Your task to perform on an android device: Add "dell xps" to the cart on newegg.com Image 0: 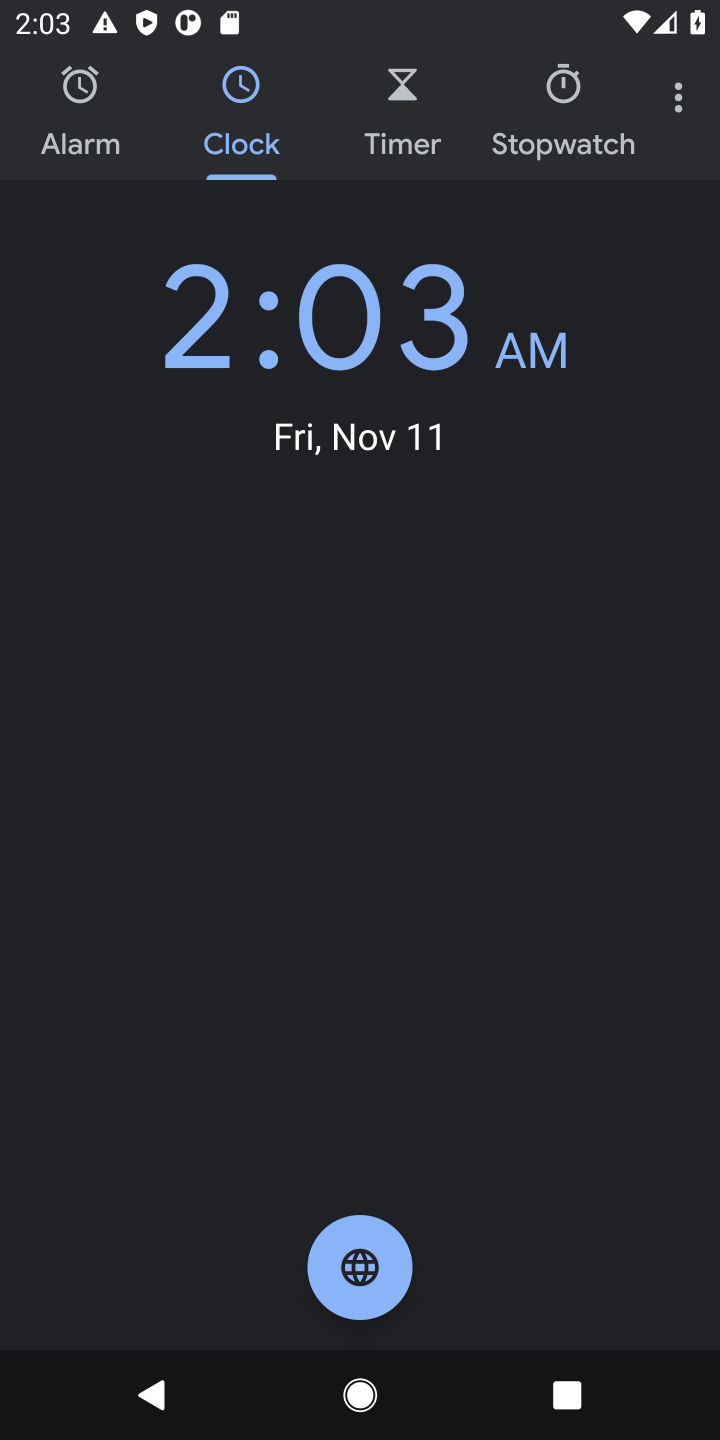
Step 0: press home button
Your task to perform on an android device: Add "dell xps" to the cart on newegg.com Image 1: 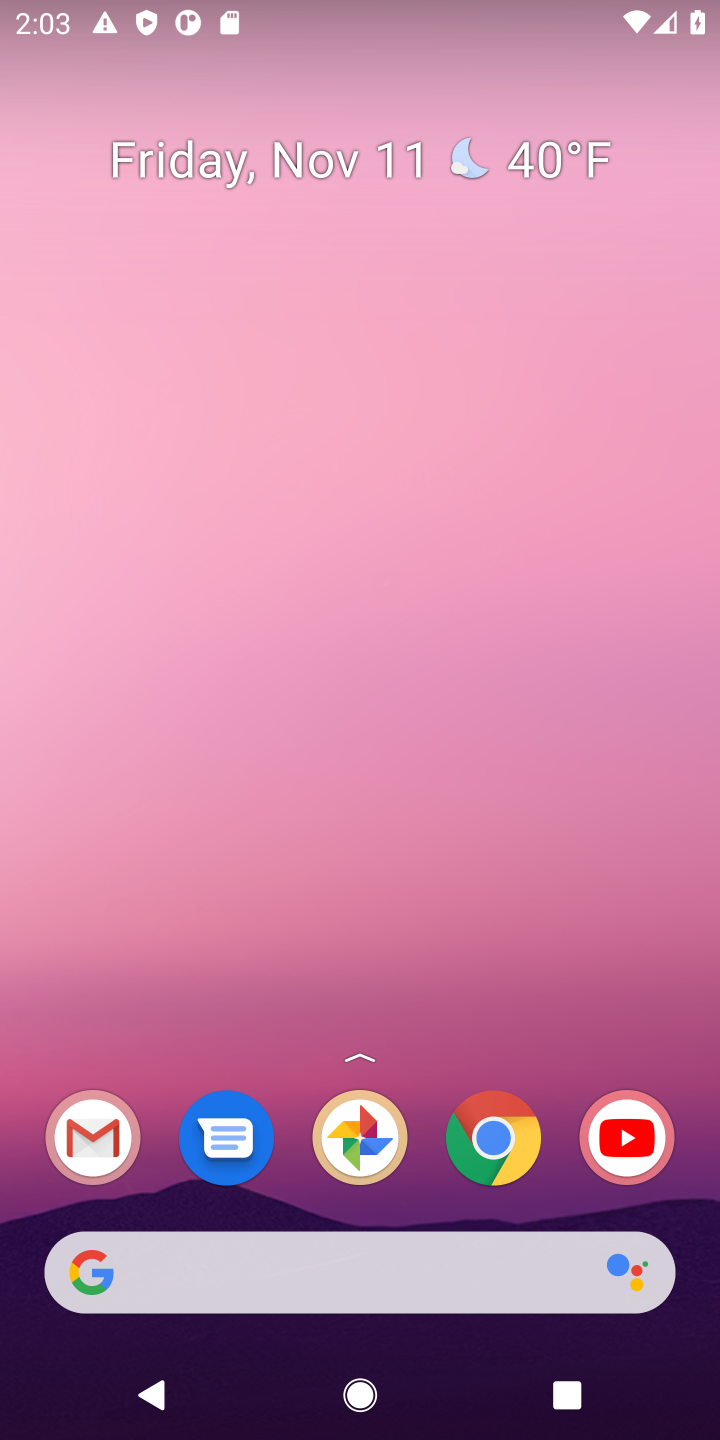
Step 1: click (502, 1132)
Your task to perform on an android device: Add "dell xps" to the cart on newegg.com Image 2: 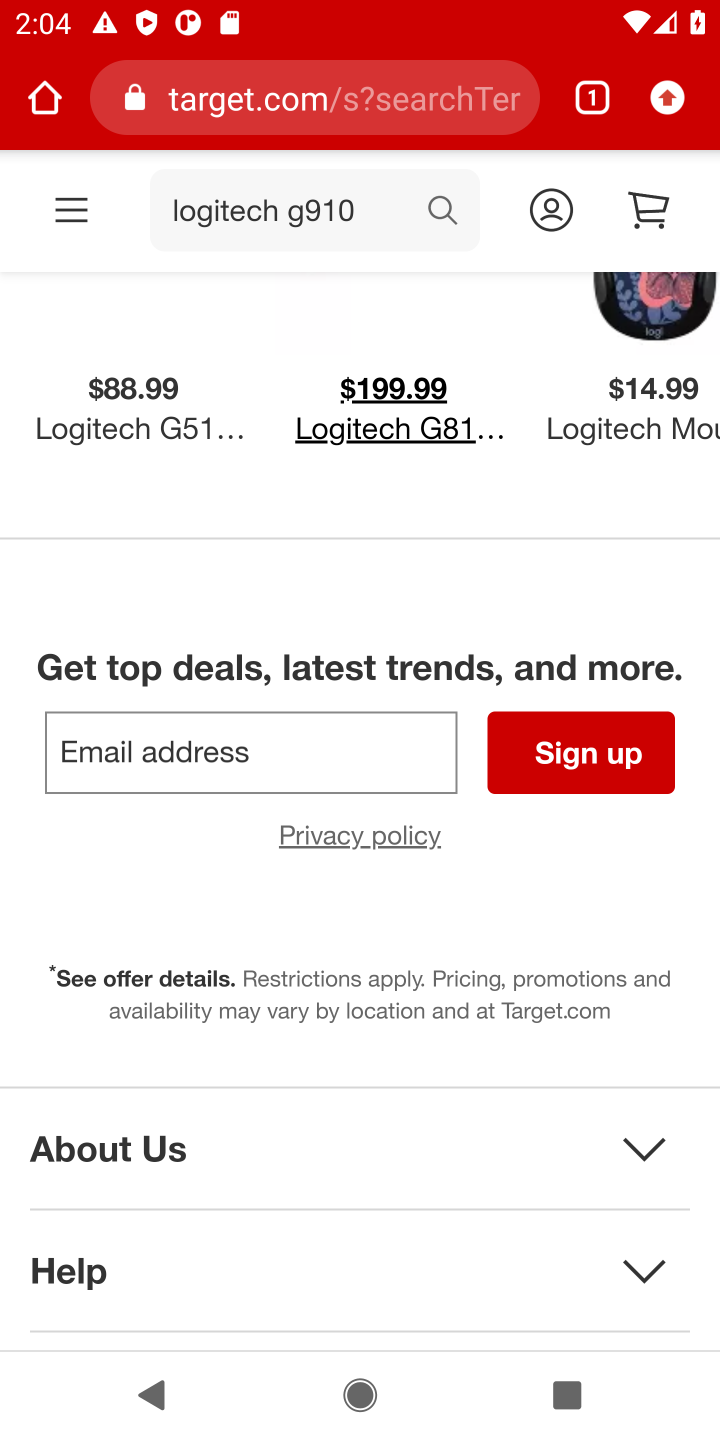
Step 2: click (381, 86)
Your task to perform on an android device: Add "dell xps" to the cart on newegg.com Image 3: 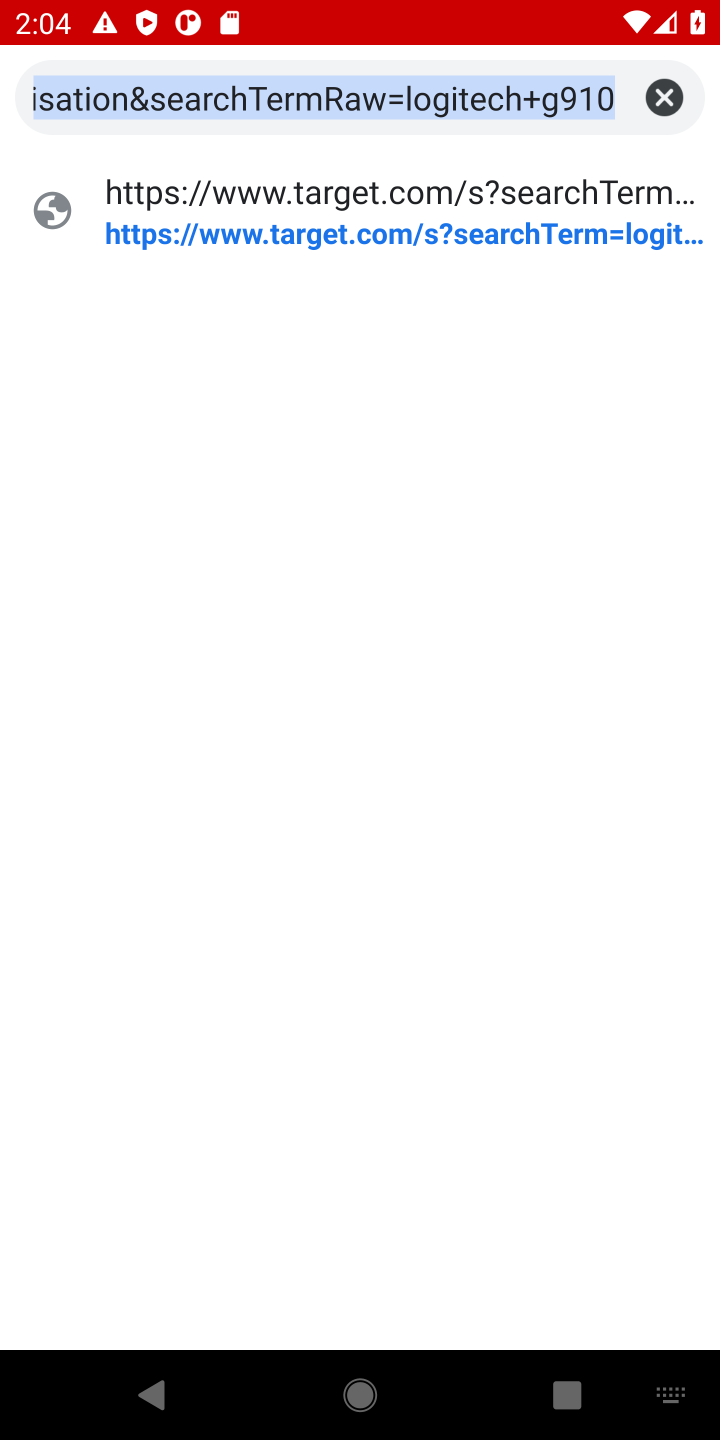
Step 3: click (673, 108)
Your task to perform on an android device: Add "dell xps" to the cart on newegg.com Image 4: 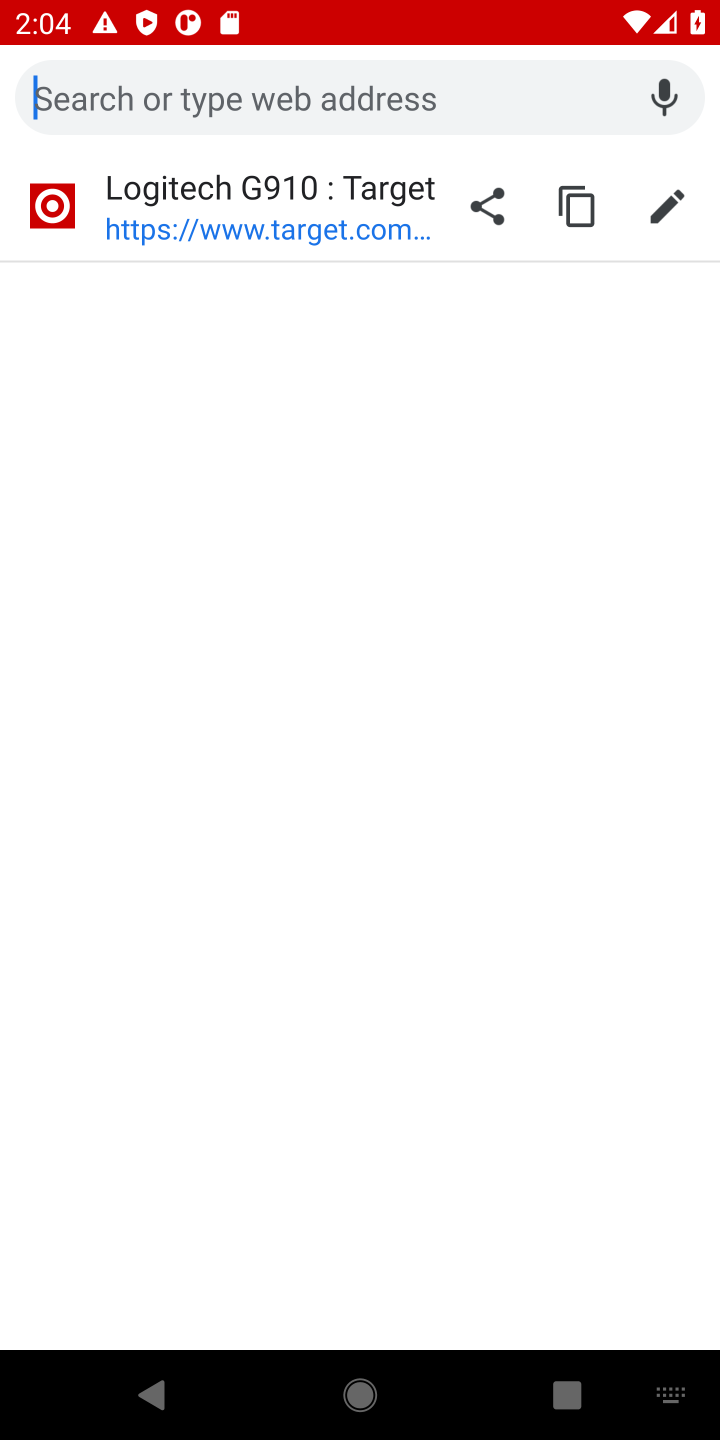
Step 4: type "newegg.com"
Your task to perform on an android device: Add "dell xps" to the cart on newegg.com Image 5: 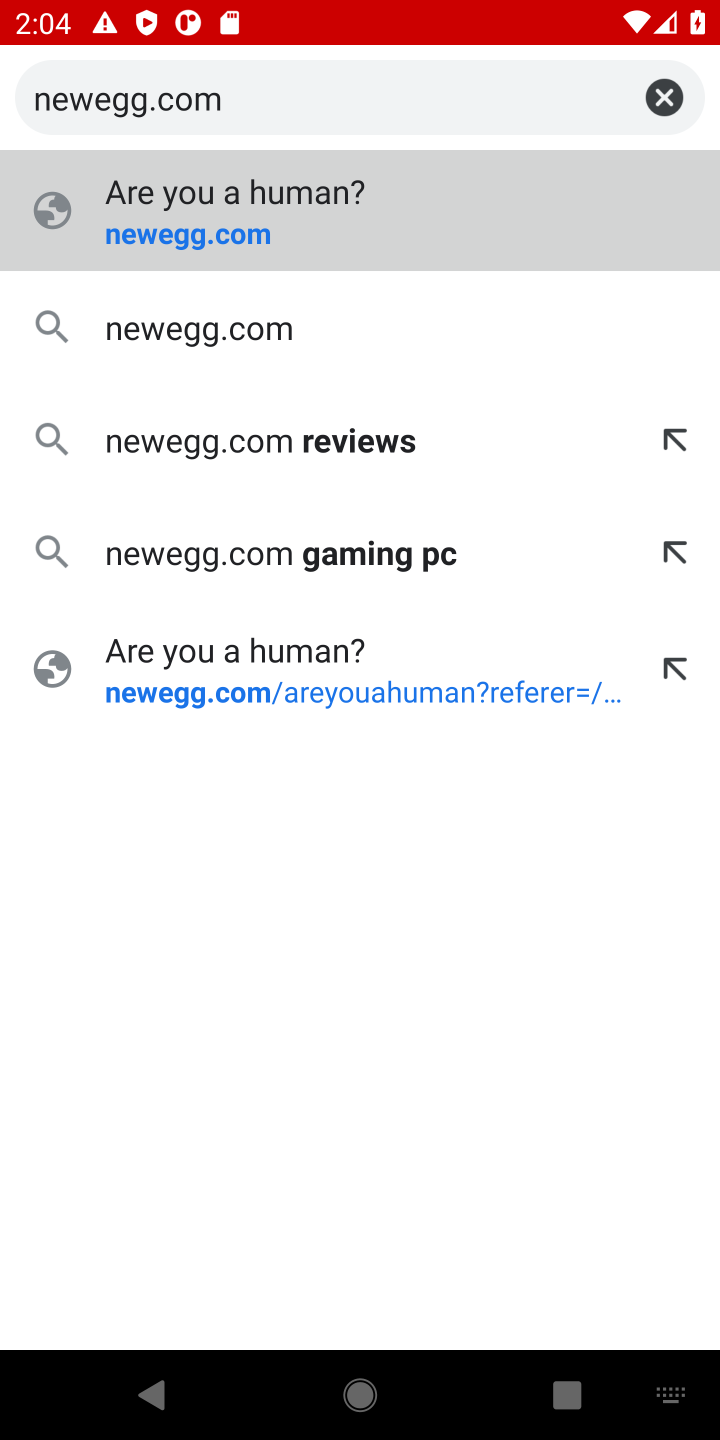
Step 5: click (245, 323)
Your task to perform on an android device: Add "dell xps" to the cart on newegg.com Image 6: 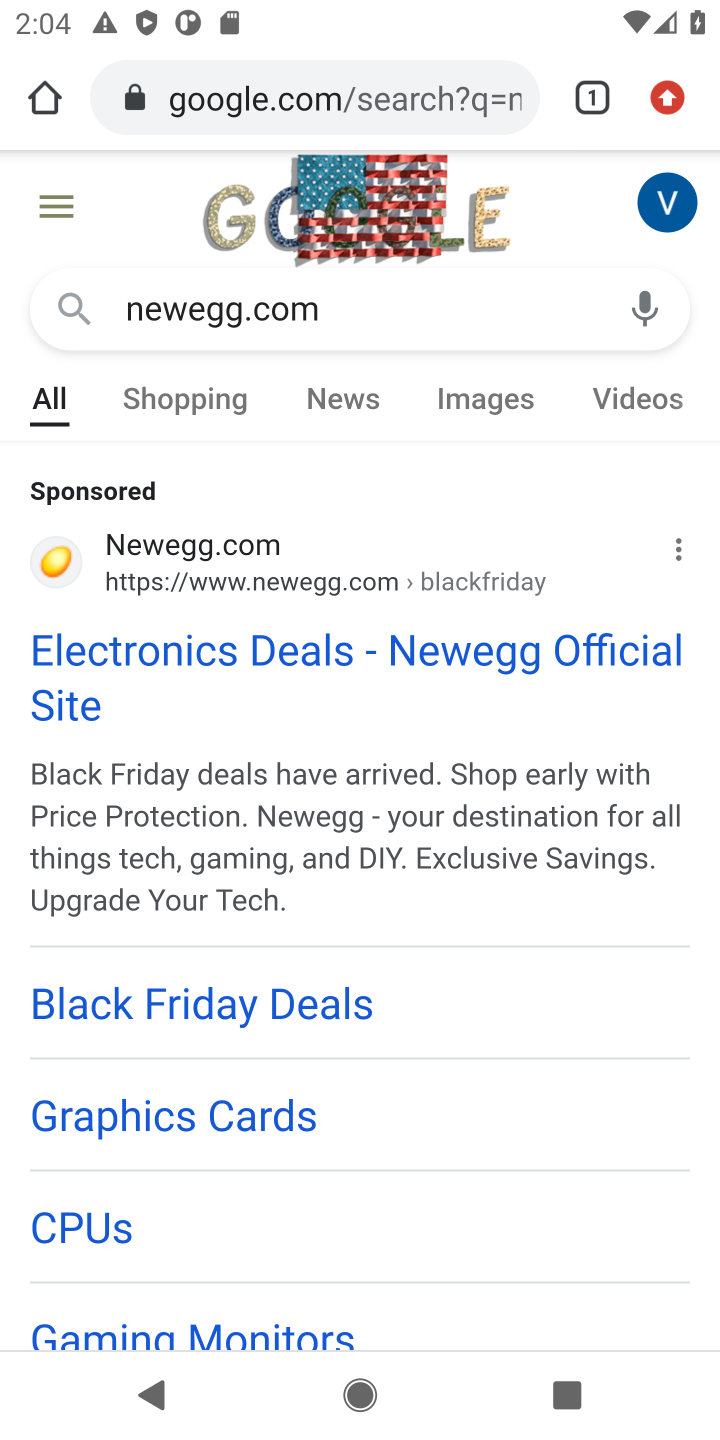
Step 6: drag from (340, 1042) to (402, 601)
Your task to perform on an android device: Add "dell xps" to the cart on newegg.com Image 7: 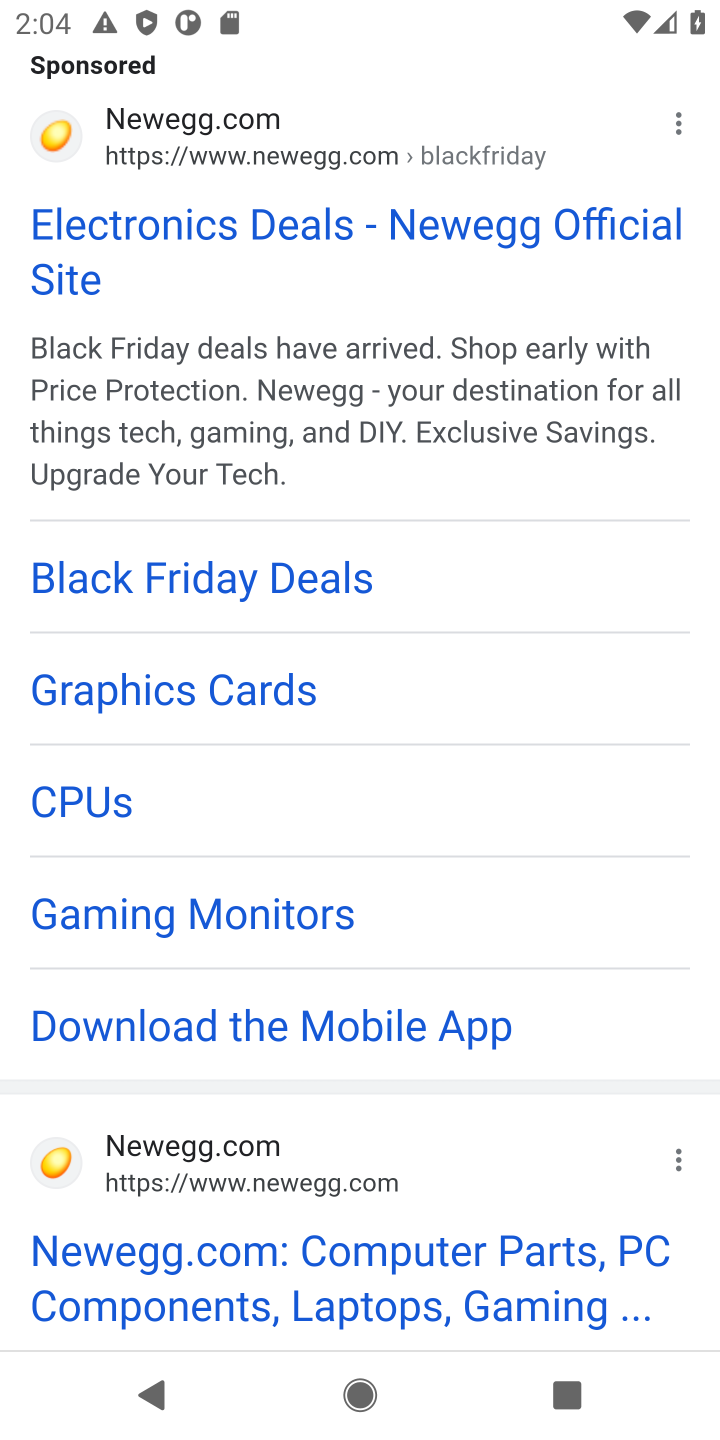
Step 7: click (334, 1189)
Your task to perform on an android device: Add "dell xps" to the cart on newegg.com Image 8: 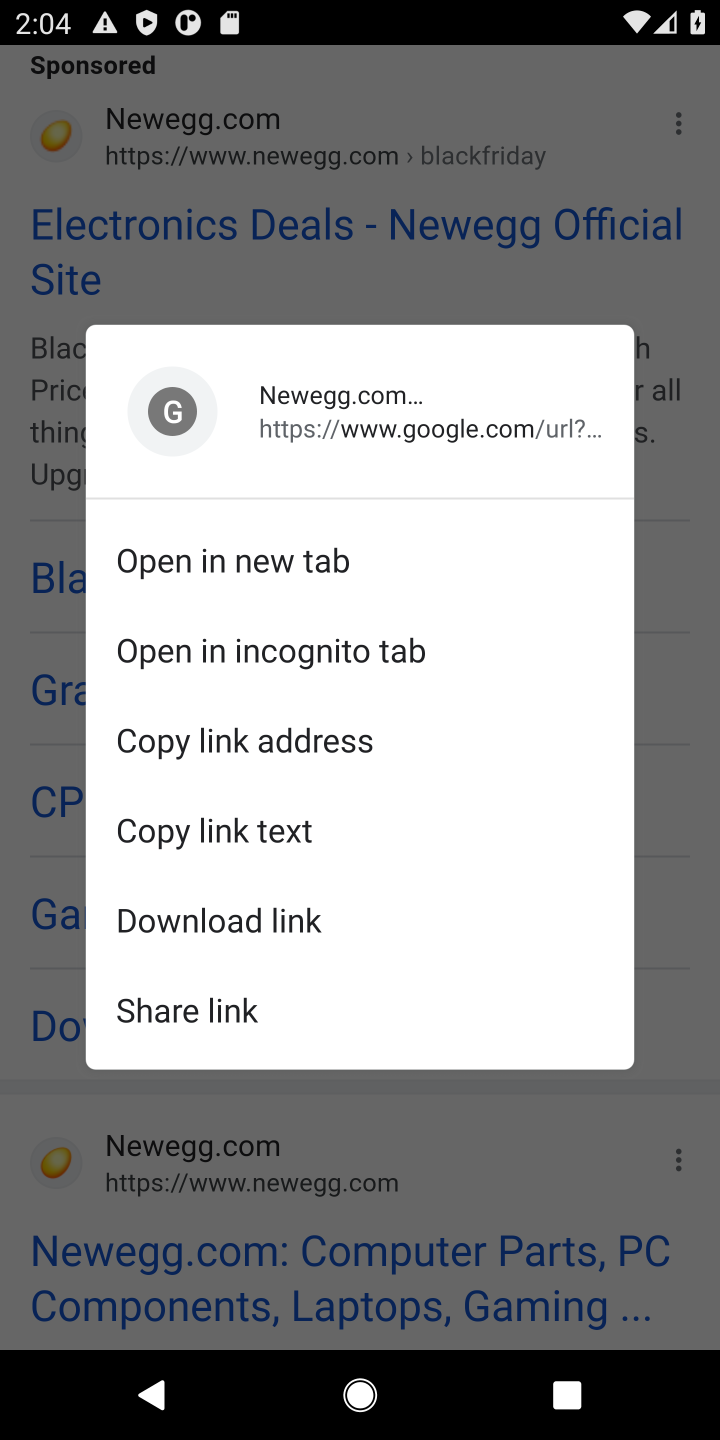
Step 8: click (335, 1181)
Your task to perform on an android device: Add "dell xps" to the cart on newegg.com Image 9: 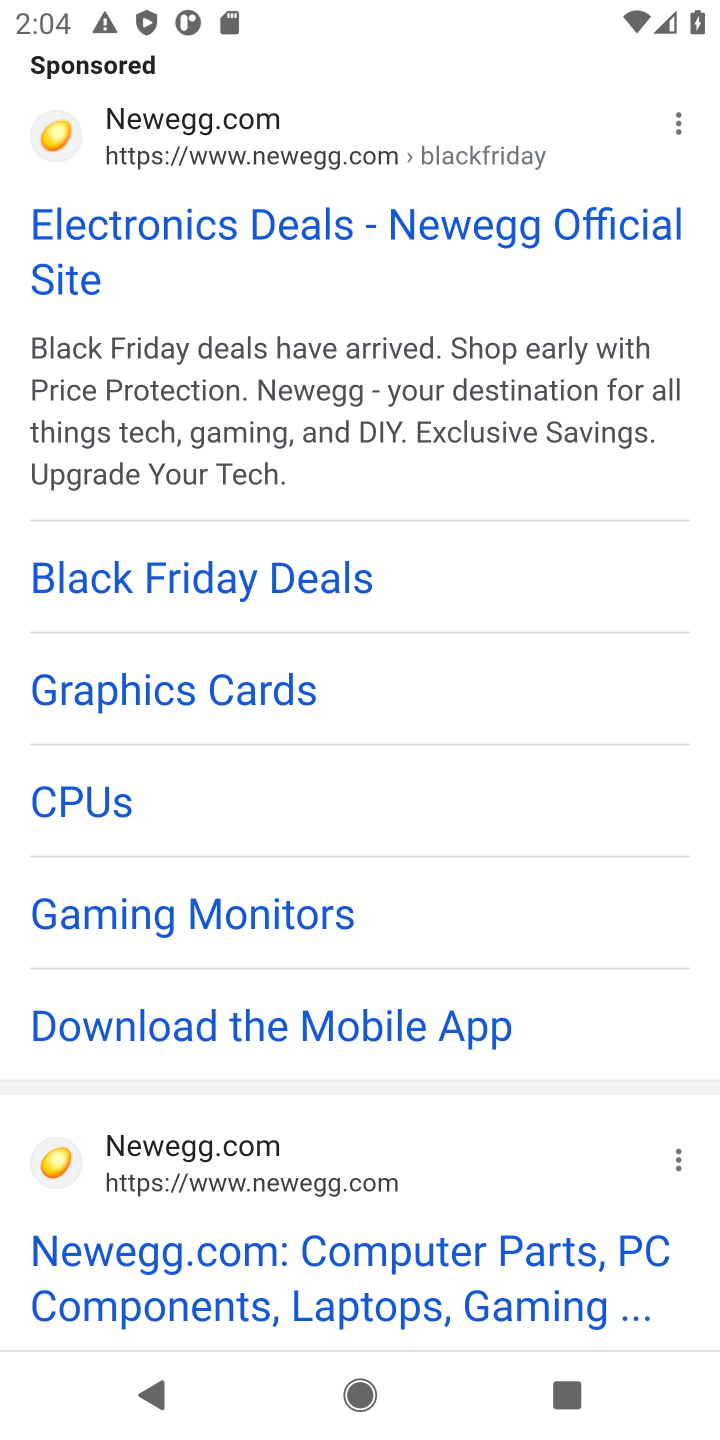
Step 9: click (206, 1183)
Your task to perform on an android device: Add "dell xps" to the cart on newegg.com Image 10: 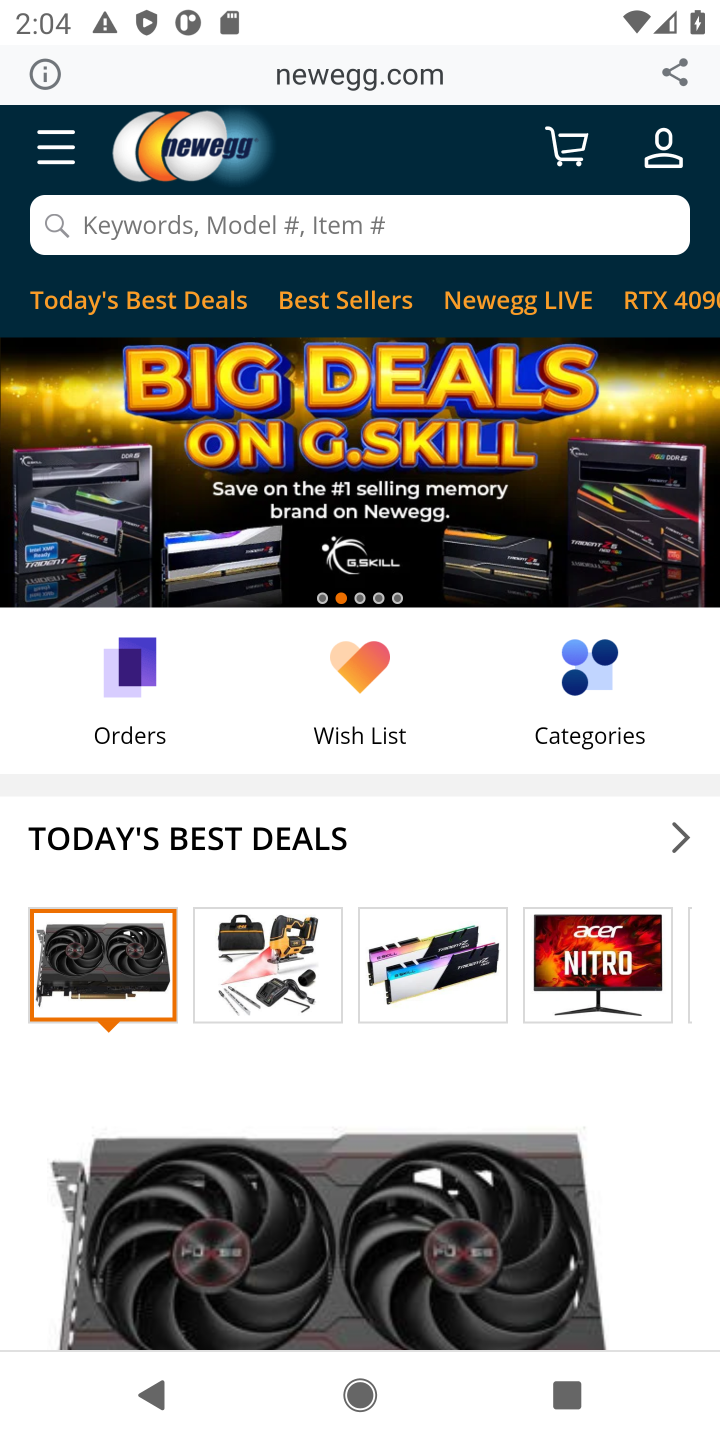
Step 10: click (235, 216)
Your task to perform on an android device: Add "dell xps" to the cart on newegg.com Image 11: 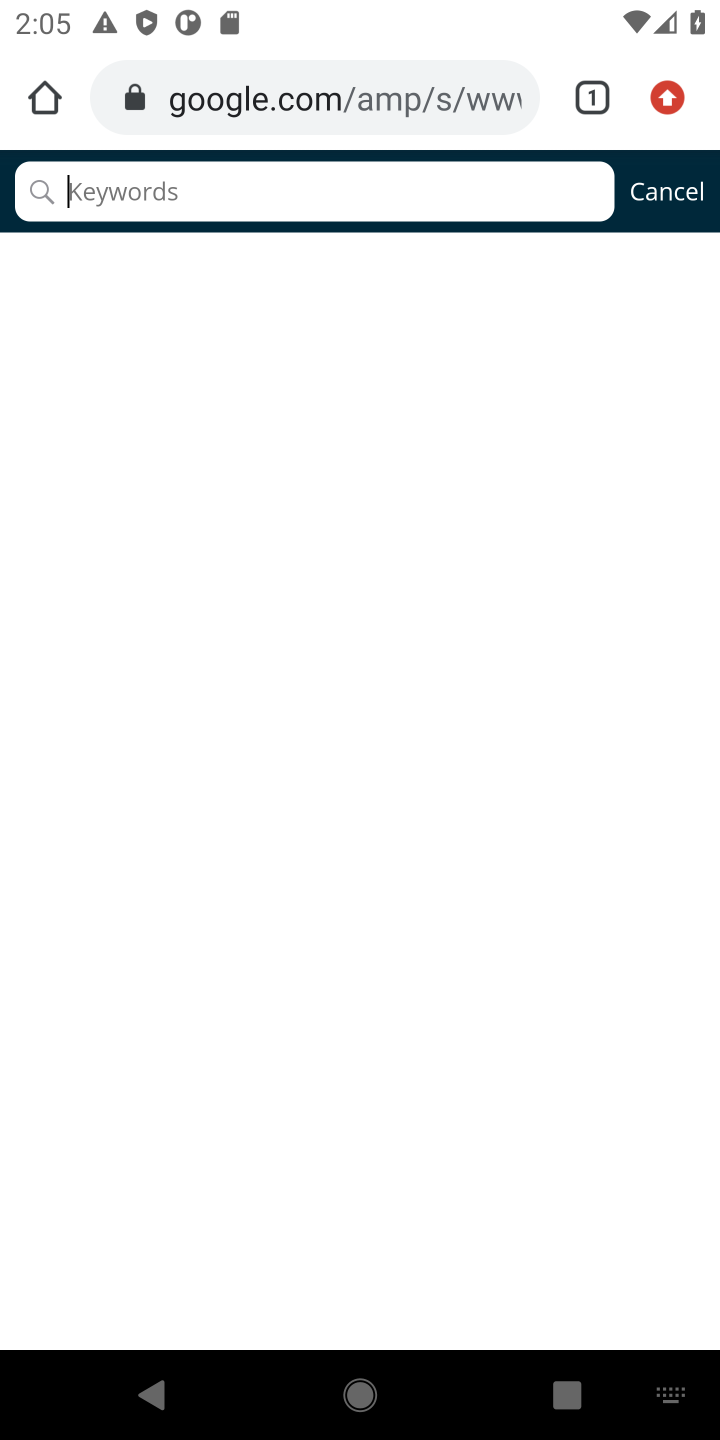
Step 11: type "dell xps"
Your task to perform on an android device: Add "dell xps" to the cart on newegg.com Image 12: 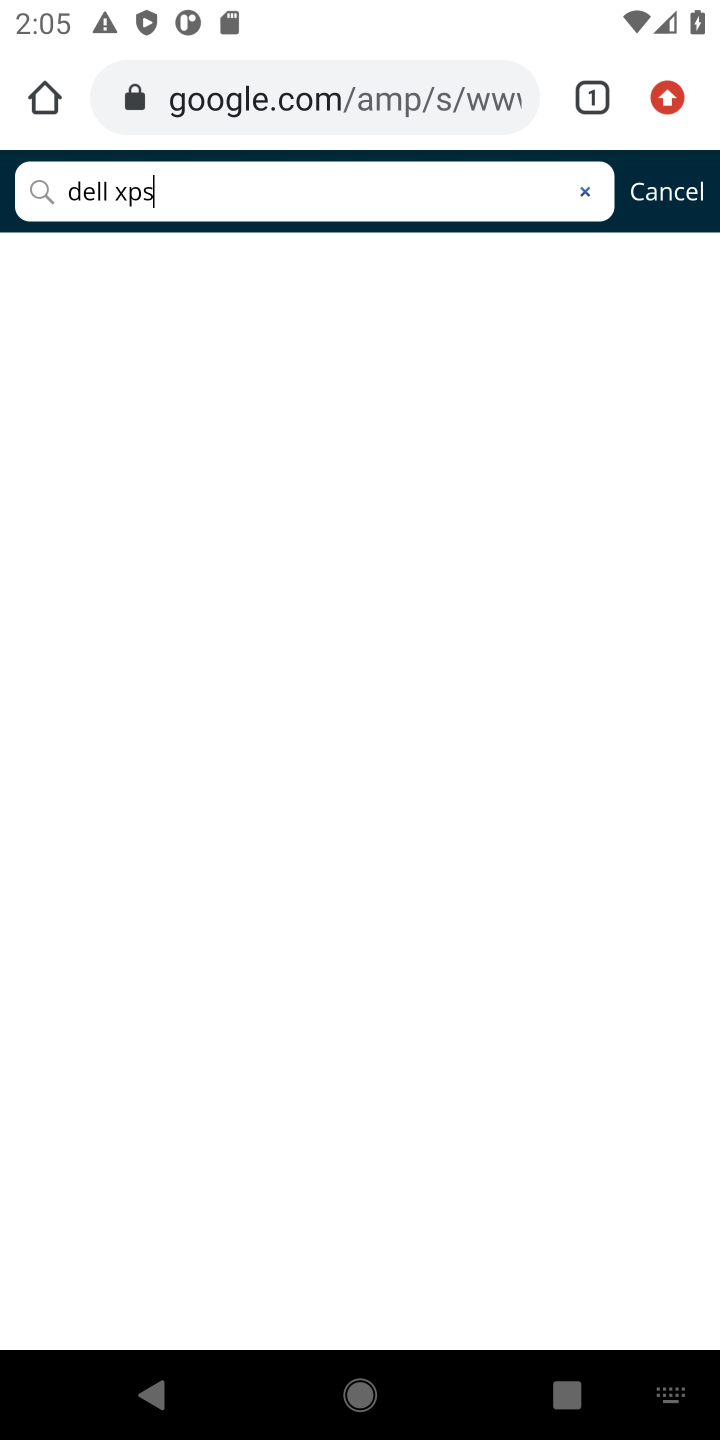
Step 12: click (502, 201)
Your task to perform on an android device: Add "dell xps" to the cart on newegg.com Image 13: 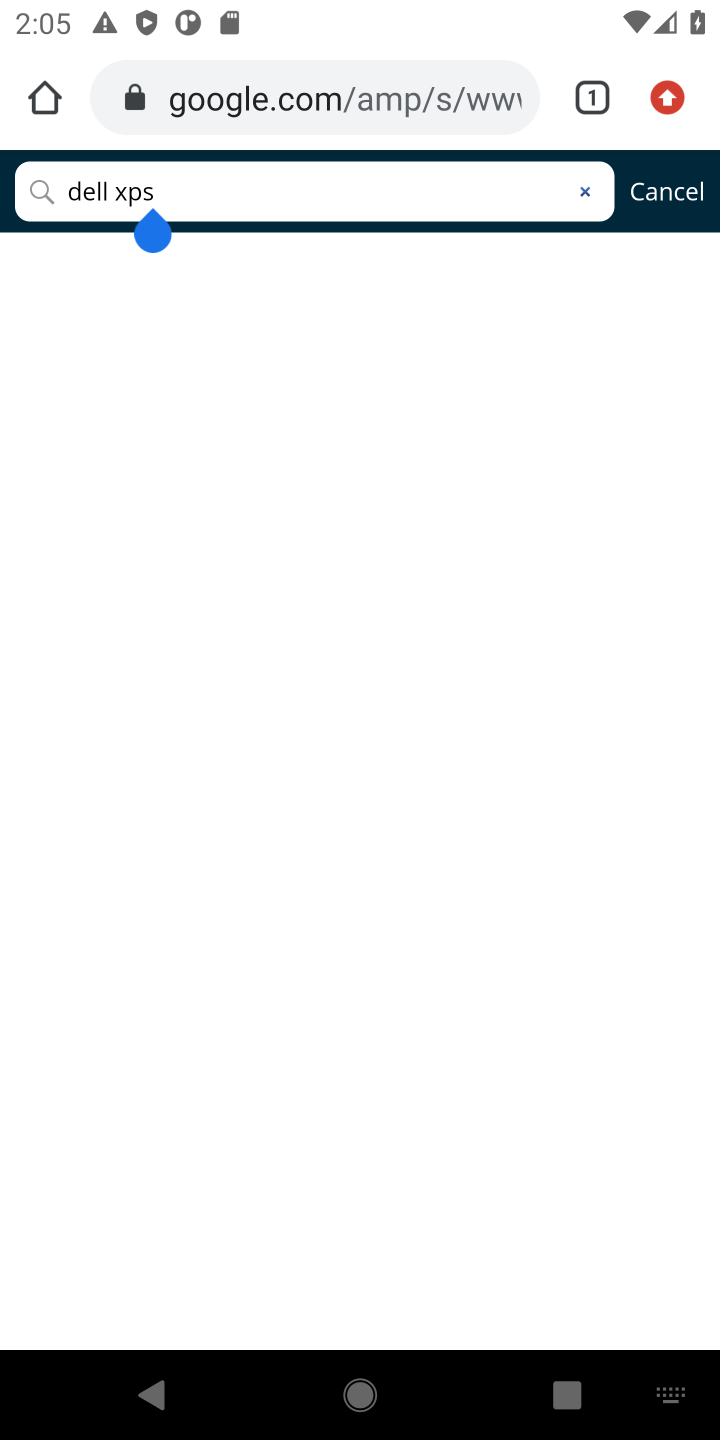
Step 13: task complete